Your task to perform on an android device: change the clock display to show seconds Image 0: 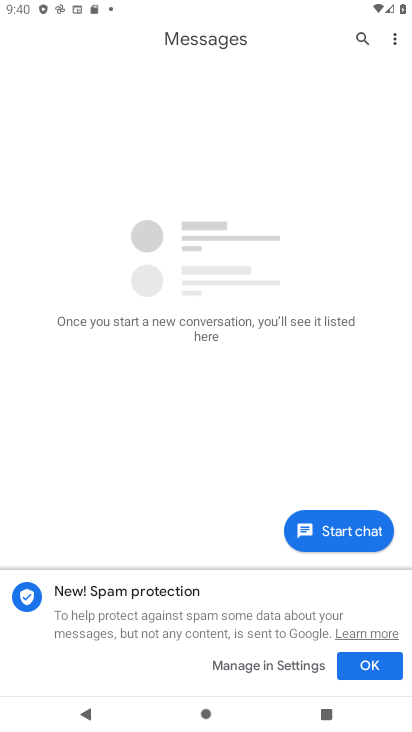
Step 0: press home button
Your task to perform on an android device: change the clock display to show seconds Image 1: 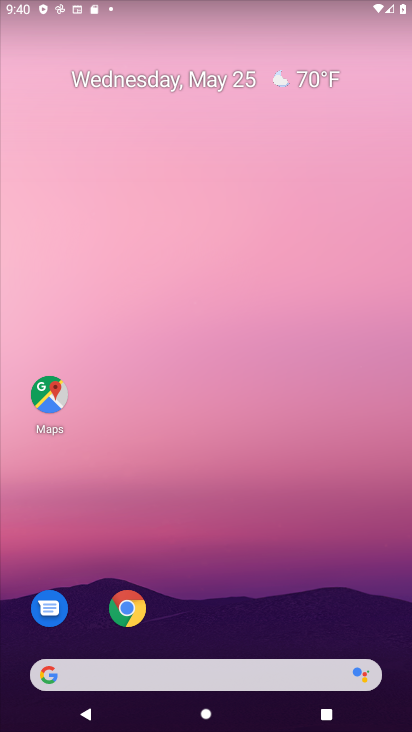
Step 1: drag from (305, 538) to (208, 73)
Your task to perform on an android device: change the clock display to show seconds Image 2: 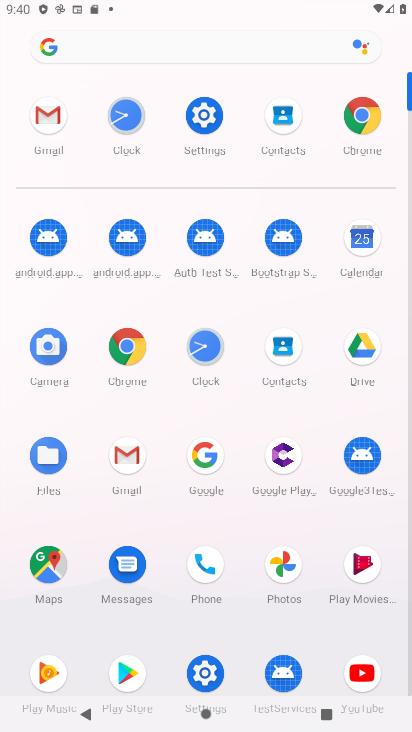
Step 2: click (207, 349)
Your task to perform on an android device: change the clock display to show seconds Image 3: 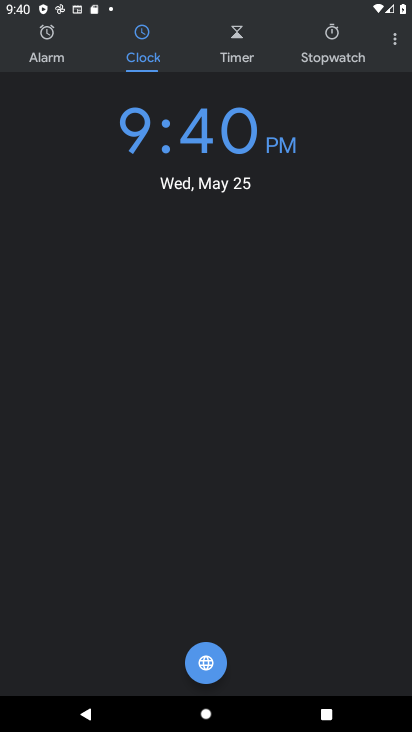
Step 3: click (395, 40)
Your task to perform on an android device: change the clock display to show seconds Image 4: 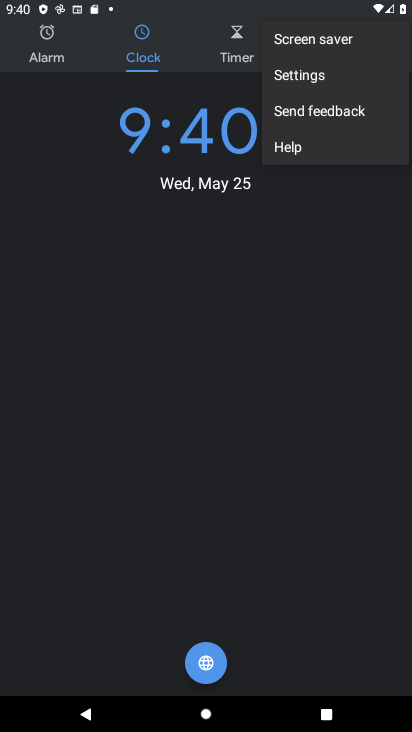
Step 4: click (297, 73)
Your task to perform on an android device: change the clock display to show seconds Image 5: 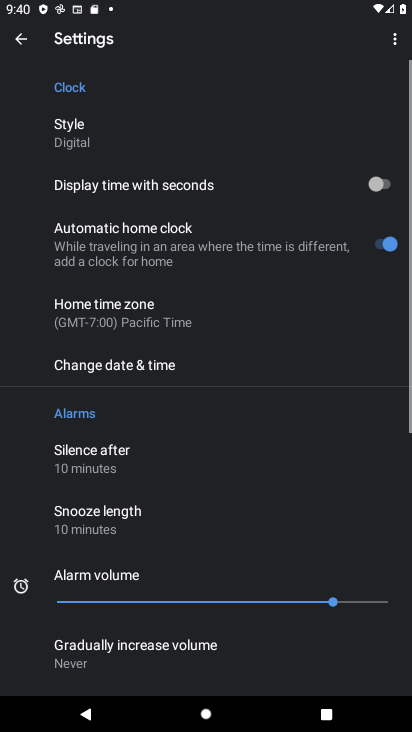
Step 5: click (384, 177)
Your task to perform on an android device: change the clock display to show seconds Image 6: 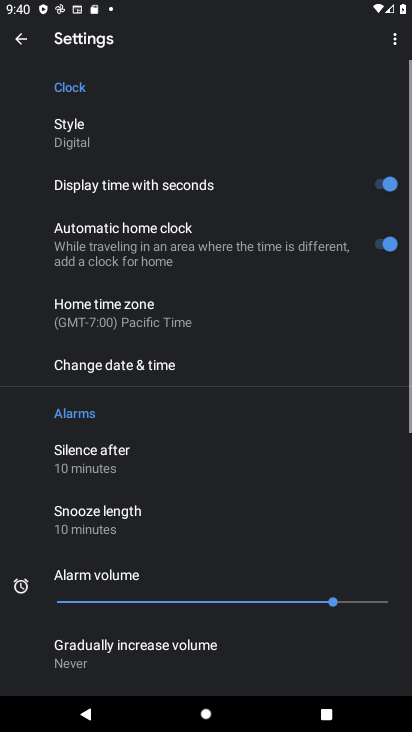
Step 6: task complete